Your task to perform on an android device: open the mobile data screen to see how much data has been used Image 0: 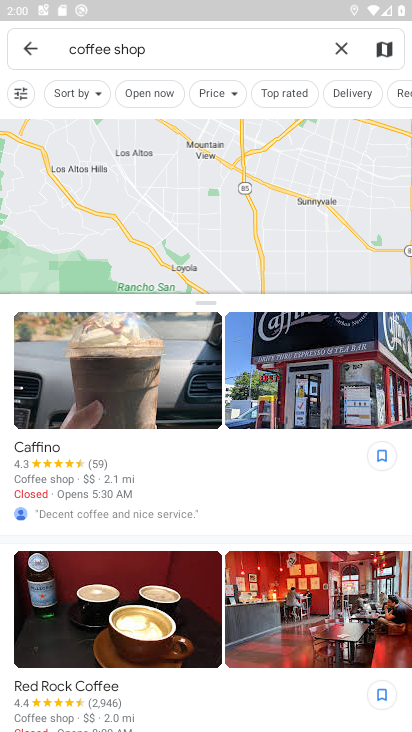
Step 0: press home button
Your task to perform on an android device: open the mobile data screen to see how much data has been used Image 1: 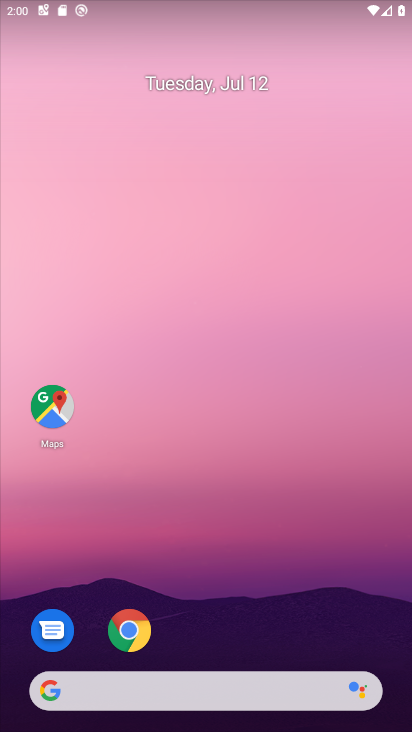
Step 1: drag from (263, 629) to (306, 245)
Your task to perform on an android device: open the mobile data screen to see how much data has been used Image 2: 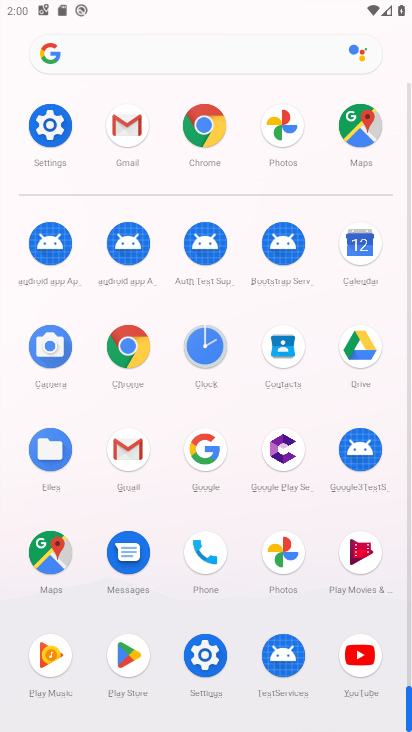
Step 2: click (49, 143)
Your task to perform on an android device: open the mobile data screen to see how much data has been used Image 3: 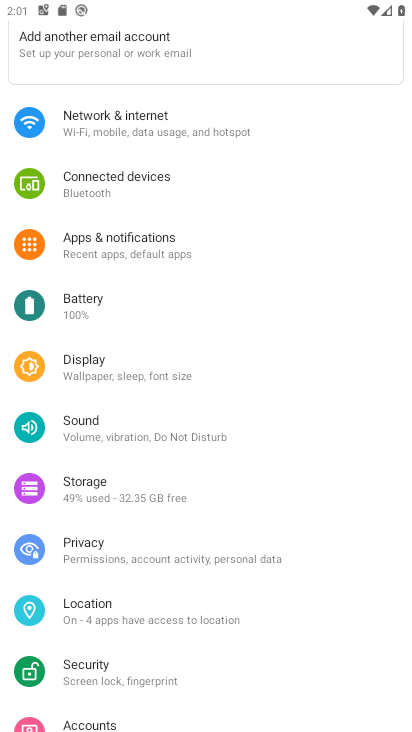
Step 3: click (138, 140)
Your task to perform on an android device: open the mobile data screen to see how much data has been used Image 4: 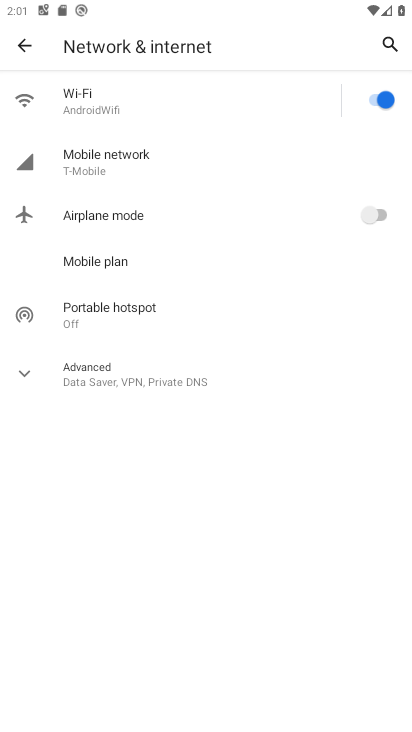
Step 4: click (167, 151)
Your task to perform on an android device: open the mobile data screen to see how much data has been used Image 5: 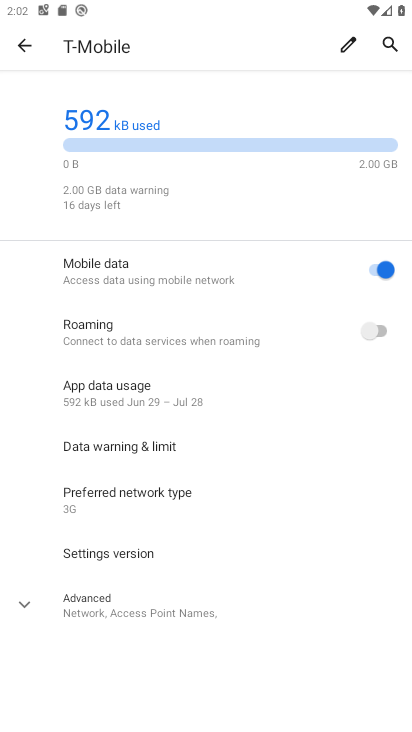
Step 5: click (149, 374)
Your task to perform on an android device: open the mobile data screen to see how much data has been used Image 6: 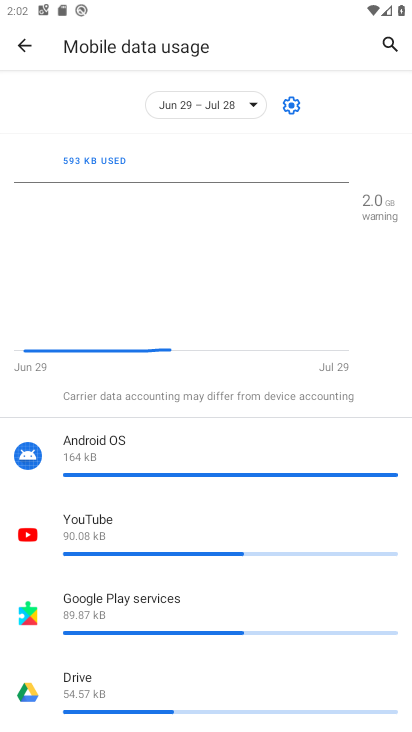
Step 6: task complete